Your task to perform on an android device: allow cookies in the chrome app Image 0: 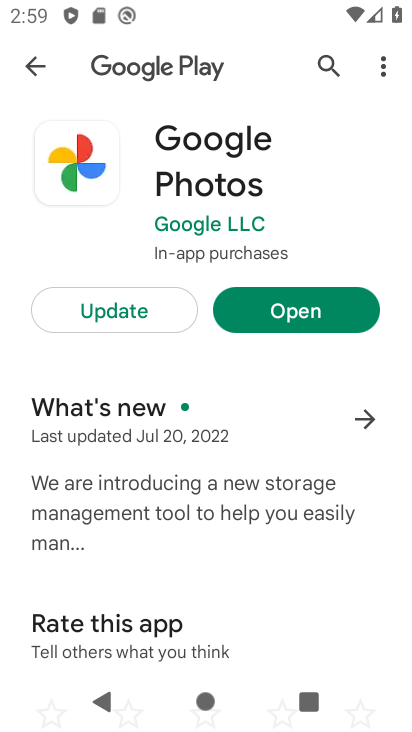
Step 0: press home button
Your task to perform on an android device: allow cookies in the chrome app Image 1: 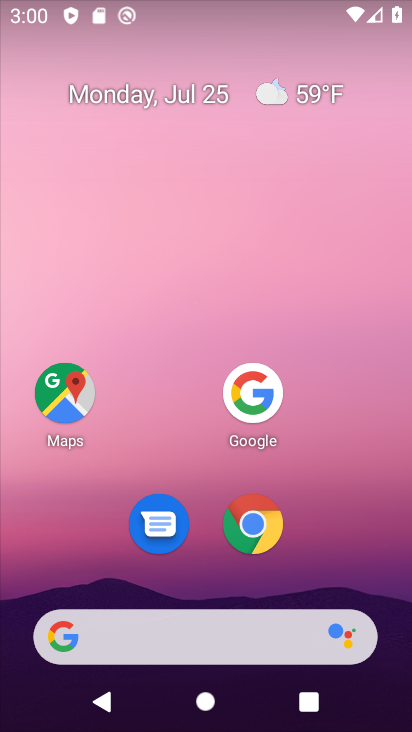
Step 1: click (248, 522)
Your task to perform on an android device: allow cookies in the chrome app Image 2: 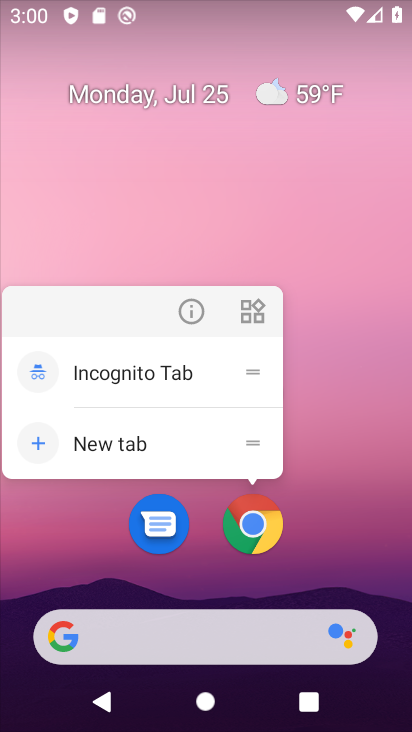
Step 2: click (251, 522)
Your task to perform on an android device: allow cookies in the chrome app Image 3: 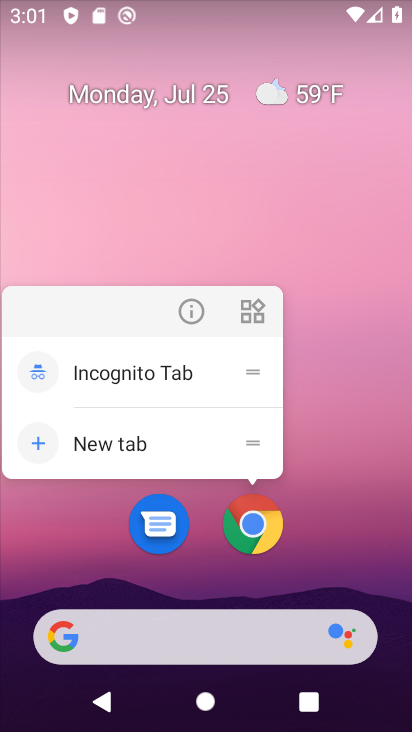
Step 3: click (262, 526)
Your task to perform on an android device: allow cookies in the chrome app Image 4: 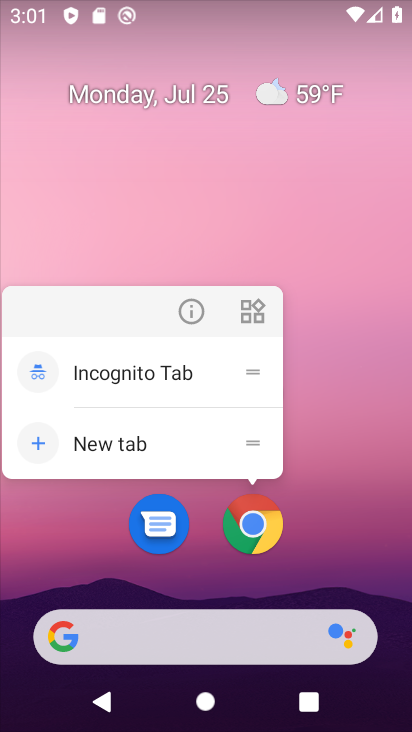
Step 4: click (255, 532)
Your task to perform on an android device: allow cookies in the chrome app Image 5: 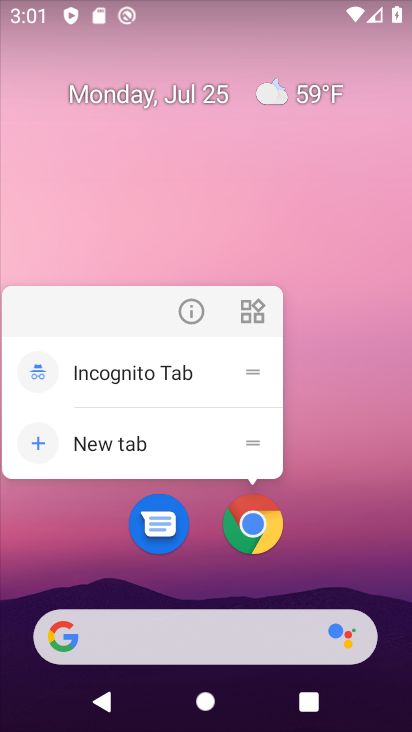
Step 5: click (257, 529)
Your task to perform on an android device: allow cookies in the chrome app Image 6: 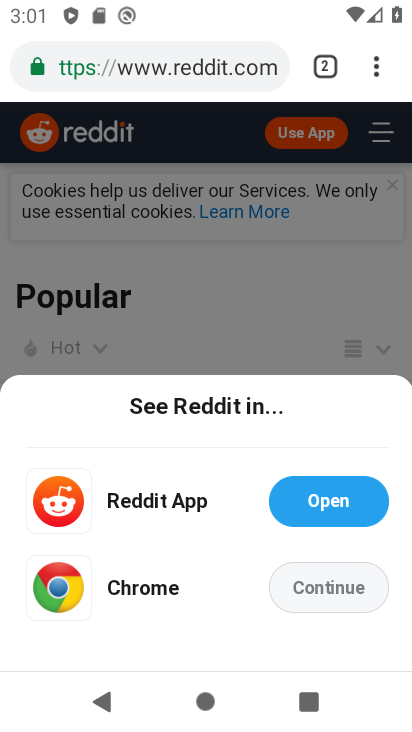
Step 6: drag from (380, 74) to (218, 530)
Your task to perform on an android device: allow cookies in the chrome app Image 7: 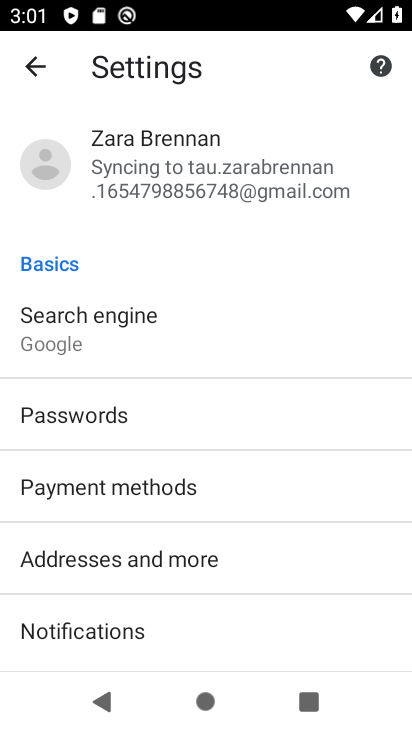
Step 7: drag from (244, 607) to (285, 282)
Your task to perform on an android device: allow cookies in the chrome app Image 8: 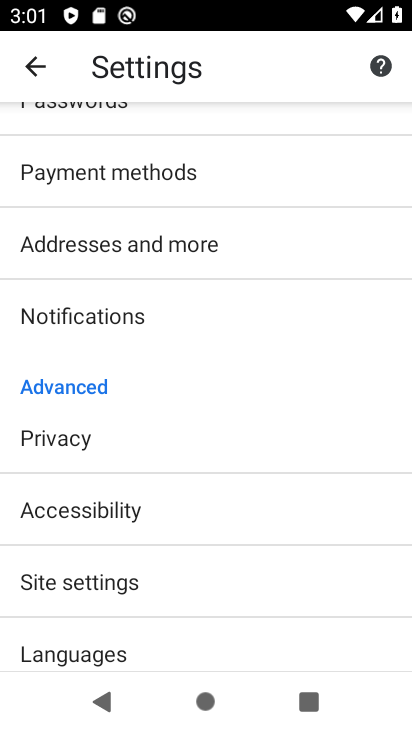
Step 8: click (109, 594)
Your task to perform on an android device: allow cookies in the chrome app Image 9: 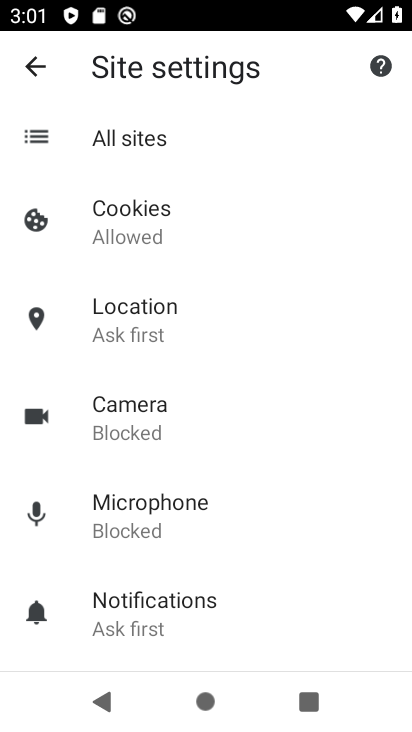
Step 9: click (150, 224)
Your task to perform on an android device: allow cookies in the chrome app Image 10: 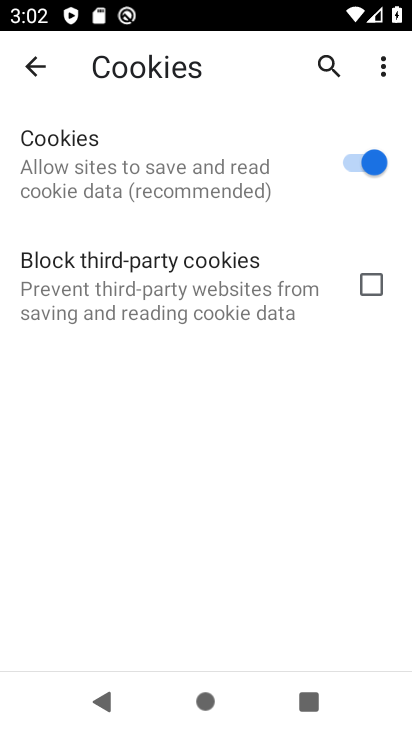
Step 10: task complete